Your task to perform on an android device: all mails in gmail Image 0: 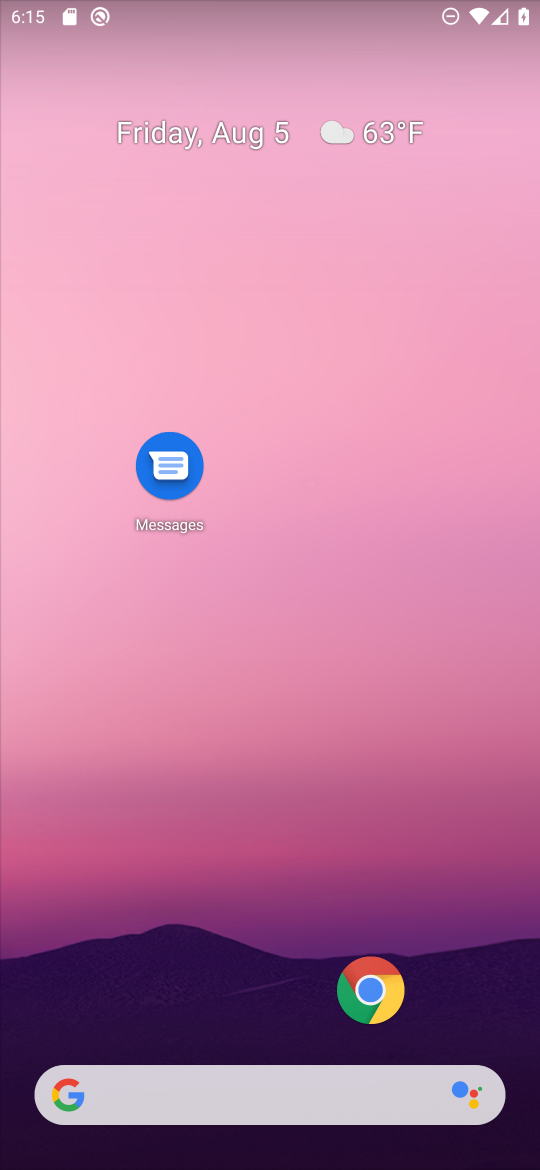
Step 0: drag from (219, 852) to (219, 738)
Your task to perform on an android device: all mails in gmail Image 1: 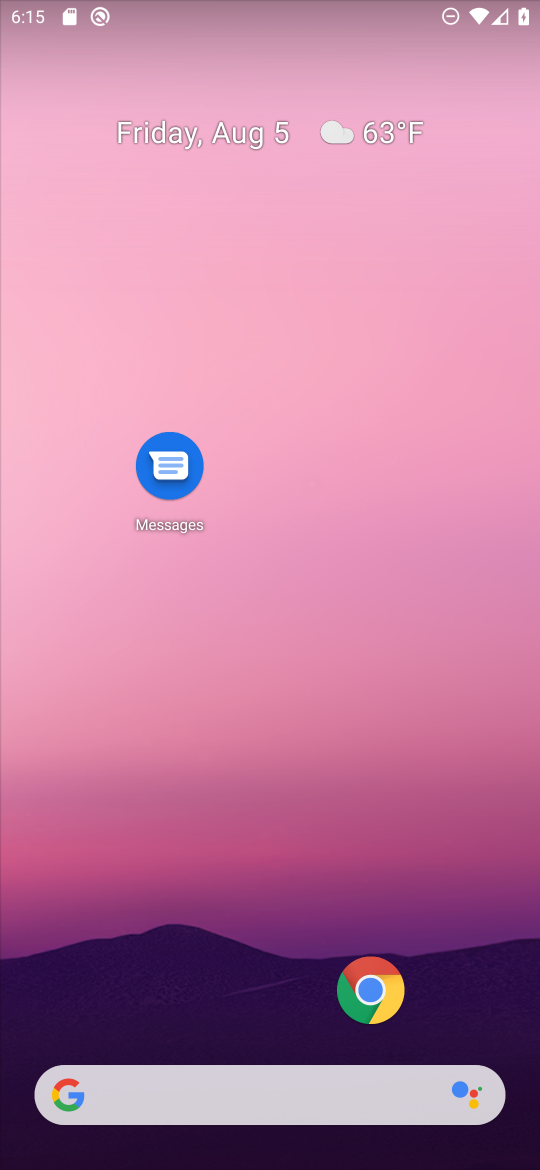
Step 1: drag from (272, 972) to (256, 479)
Your task to perform on an android device: all mails in gmail Image 2: 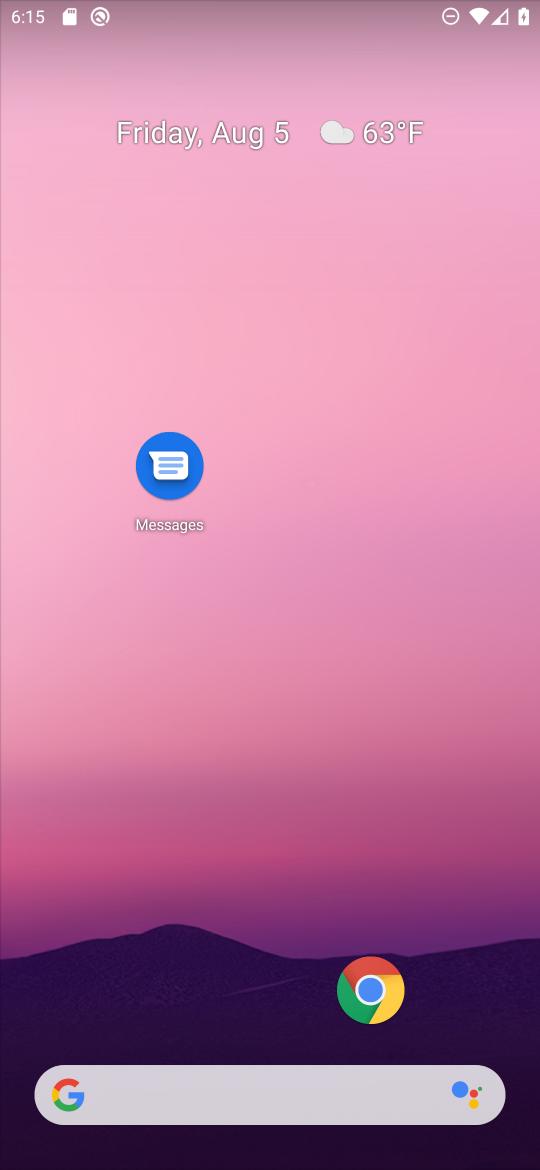
Step 2: drag from (221, 958) to (214, 507)
Your task to perform on an android device: all mails in gmail Image 3: 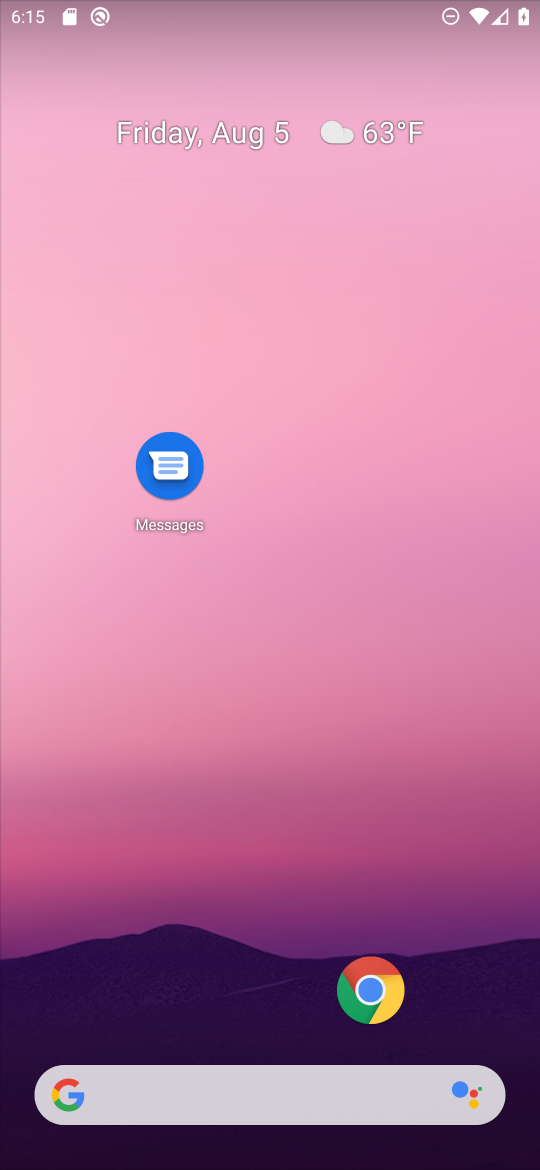
Step 3: click (180, 511)
Your task to perform on an android device: all mails in gmail Image 4: 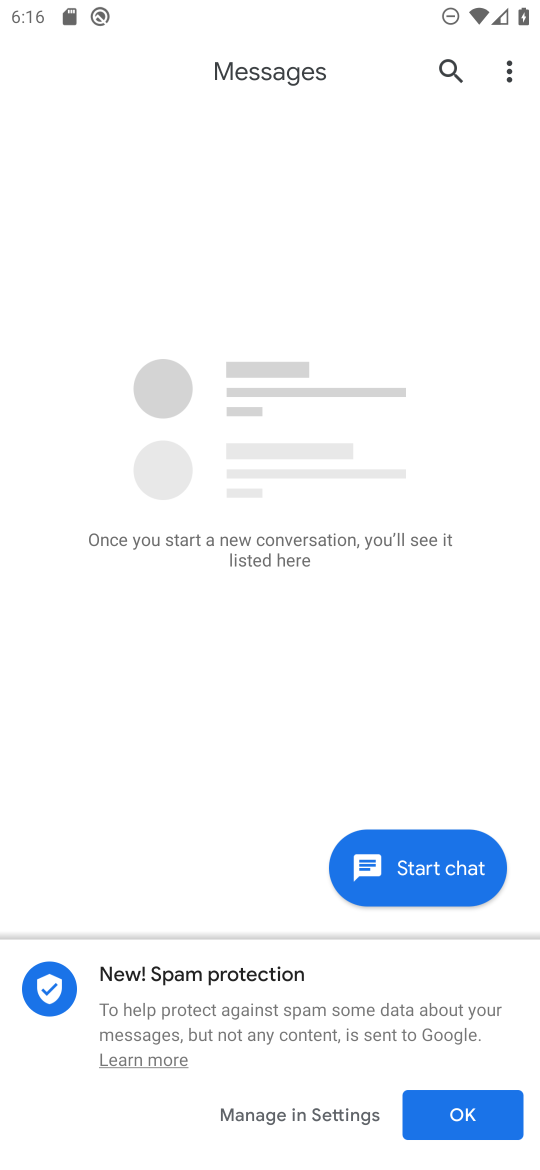
Step 4: press home button
Your task to perform on an android device: all mails in gmail Image 5: 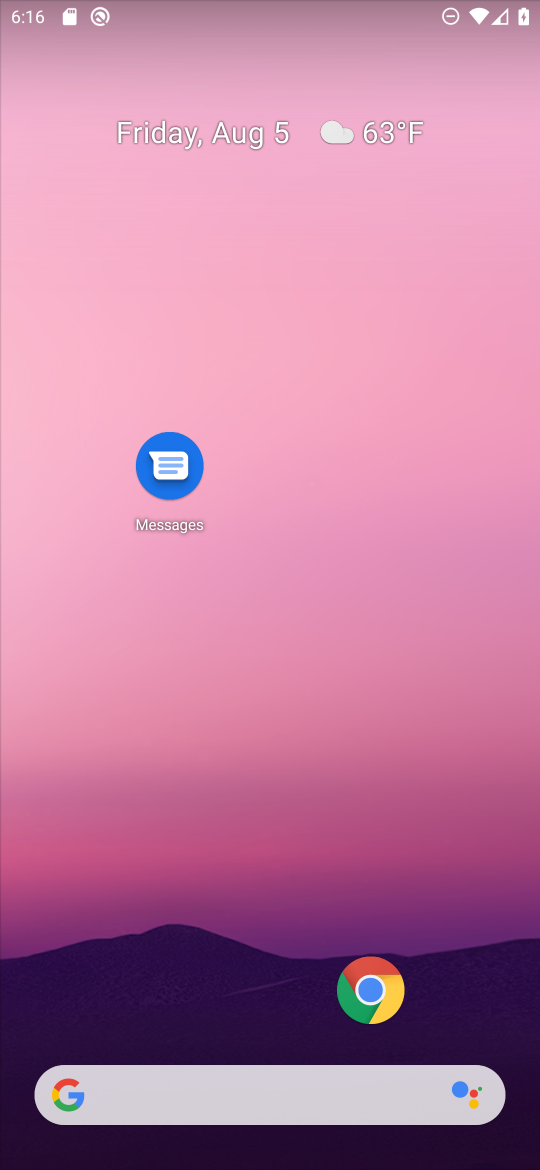
Step 5: drag from (186, 801) to (176, 623)
Your task to perform on an android device: all mails in gmail Image 6: 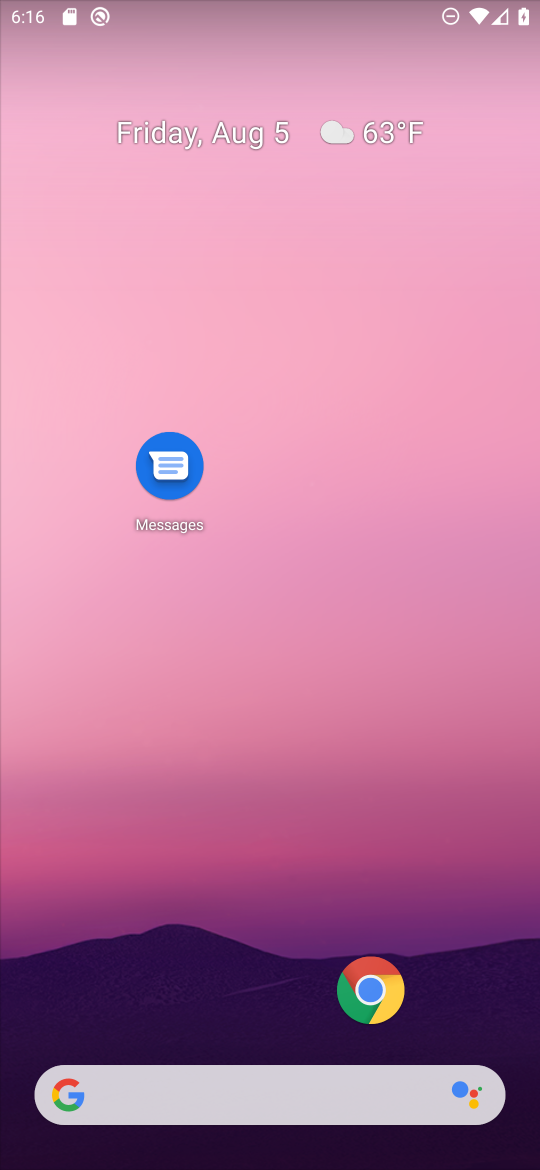
Step 6: drag from (161, 1037) to (82, 592)
Your task to perform on an android device: all mails in gmail Image 7: 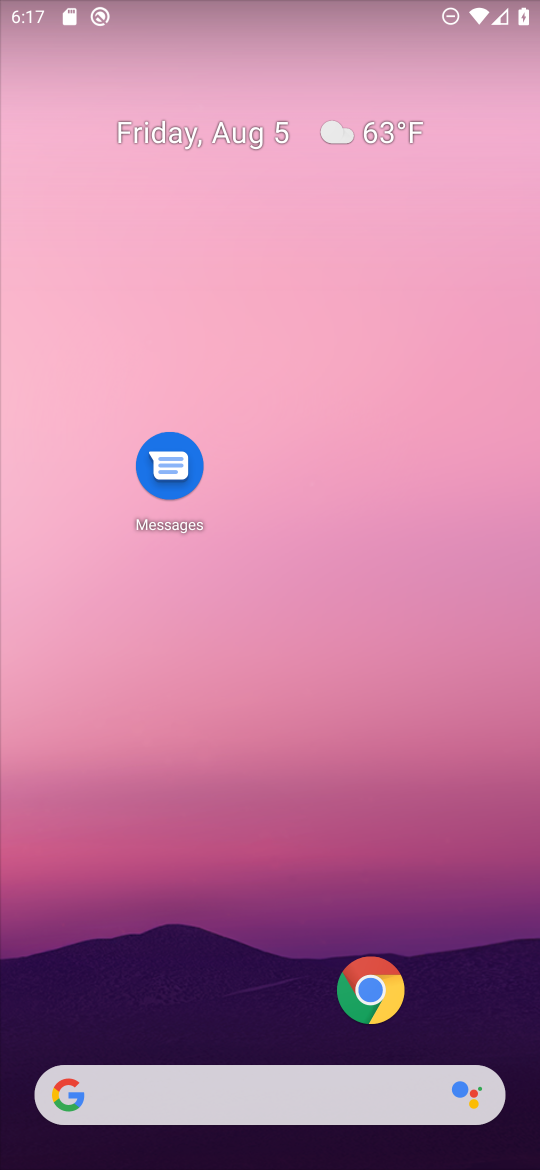
Step 7: press home button
Your task to perform on an android device: all mails in gmail Image 8: 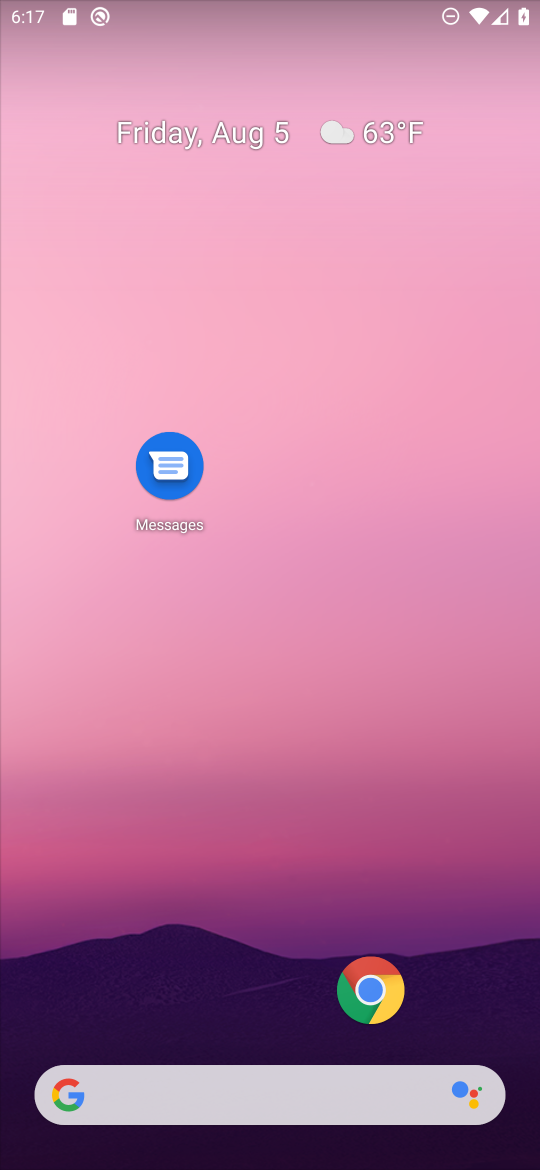
Step 8: drag from (191, 948) to (175, 581)
Your task to perform on an android device: all mails in gmail Image 9: 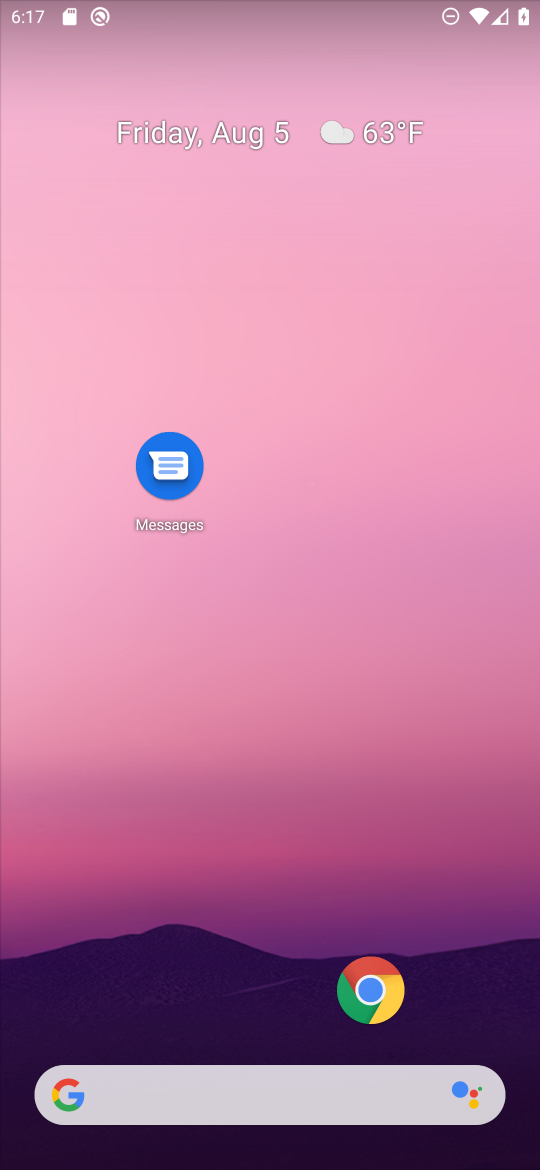
Step 9: drag from (202, 1073) to (91, 441)
Your task to perform on an android device: all mails in gmail Image 10: 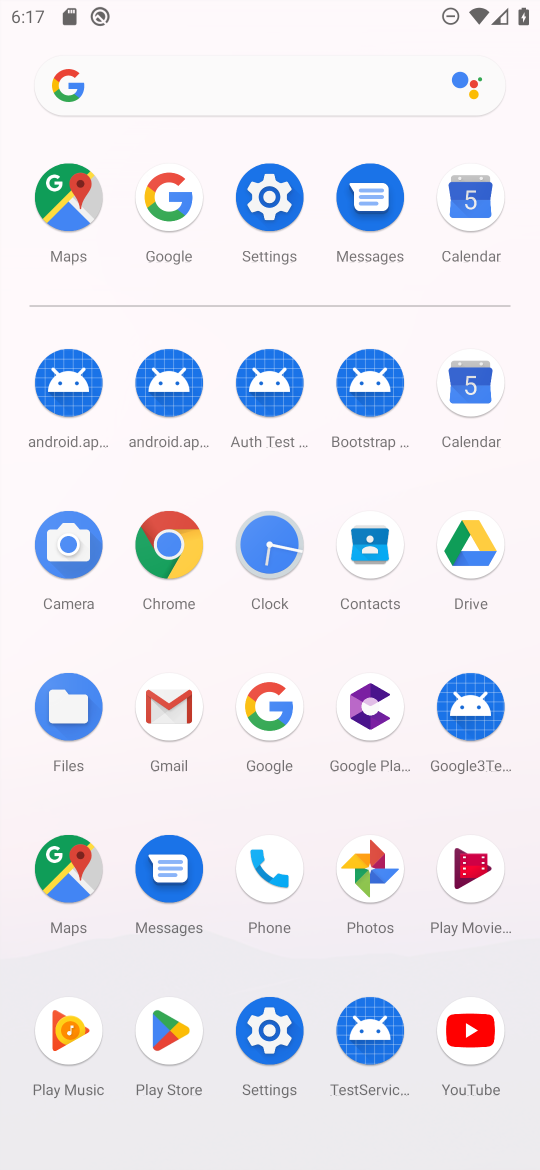
Step 10: click (149, 734)
Your task to perform on an android device: all mails in gmail Image 11: 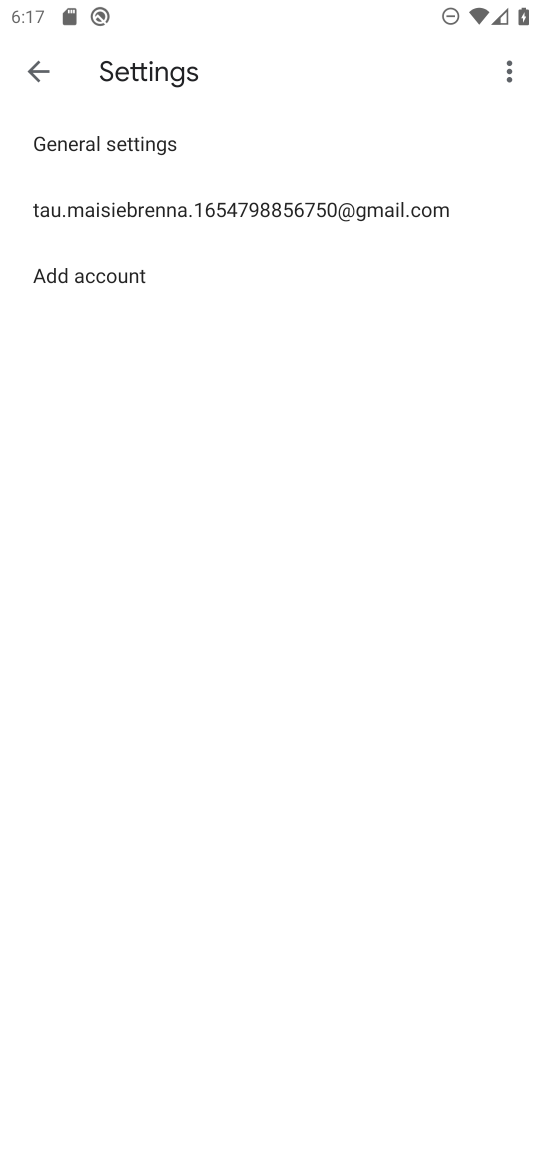
Step 11: click (42, 67)
Your task to perform on an android device: all mails in gmail Image 12: 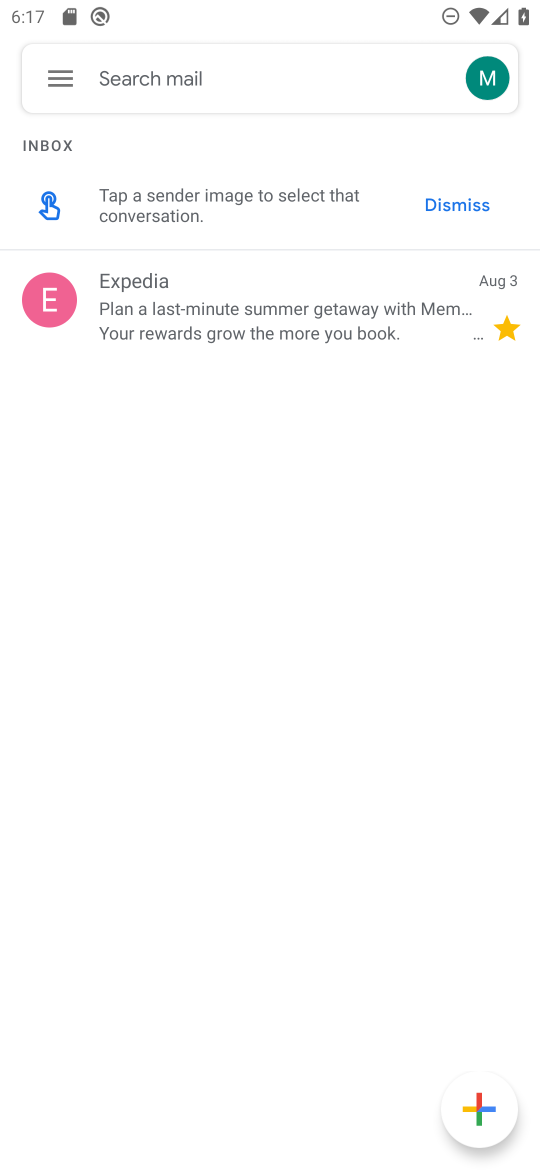
Step 12: click (42, 67)
Your task to perform on an android device: all mails in gmail Image 13: 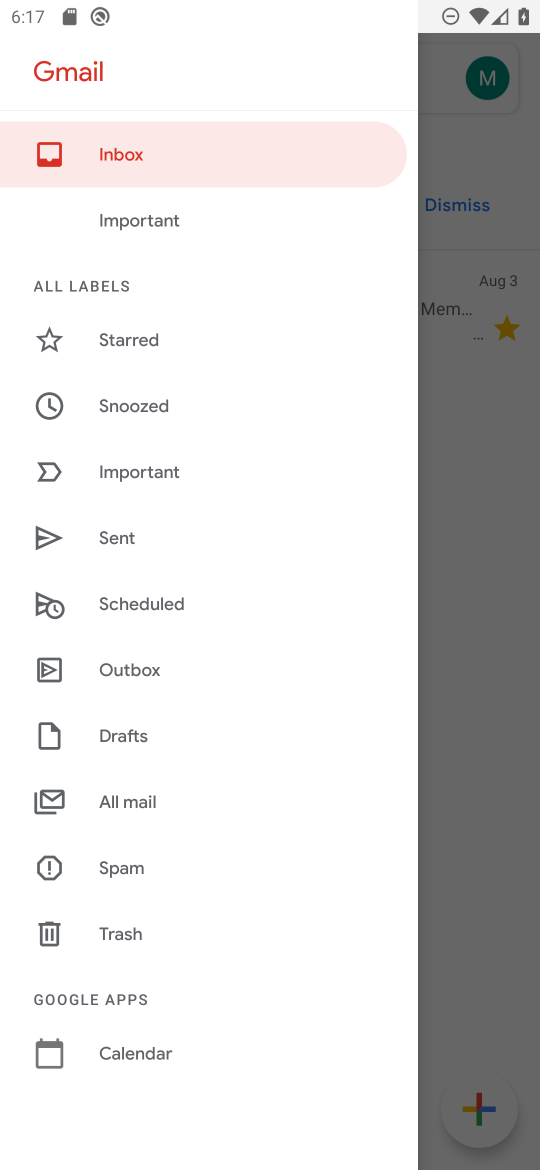
Step 13: click (105, 807)
Your task to perform on an android device: all mails in gmail Image 14: 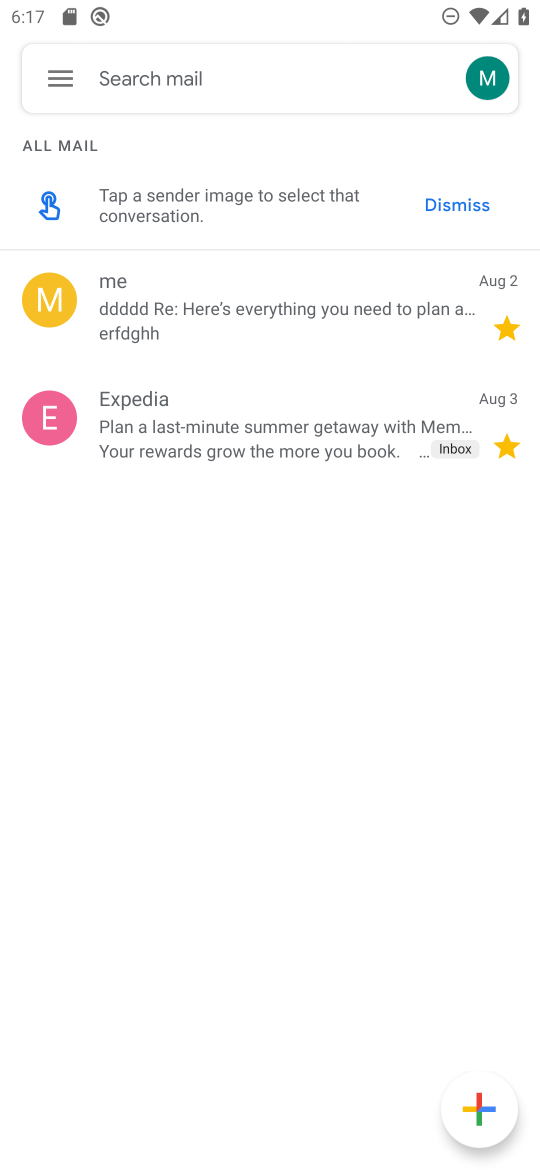
Step 14: task complete